Your task to perform on an android device: Do I have any events today? Image 0: 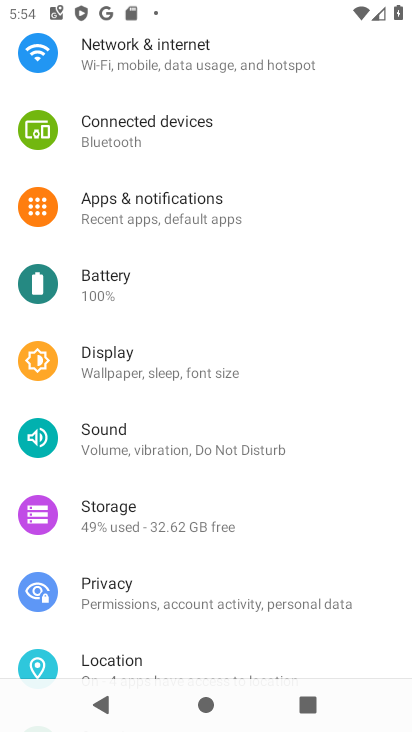
Step 0: press home button
Your task to perform on an android device: Do I have any events today? Image 1: 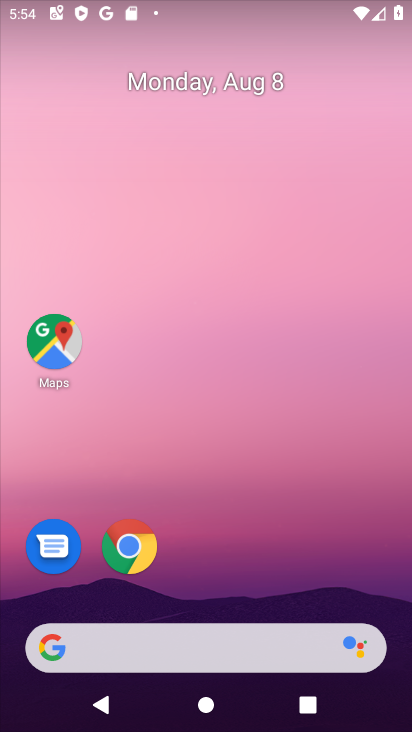
Step 1: drag from (244, 551) to (244, 154)
Your task to perform on an android device: Do I have any events today? Image 2: 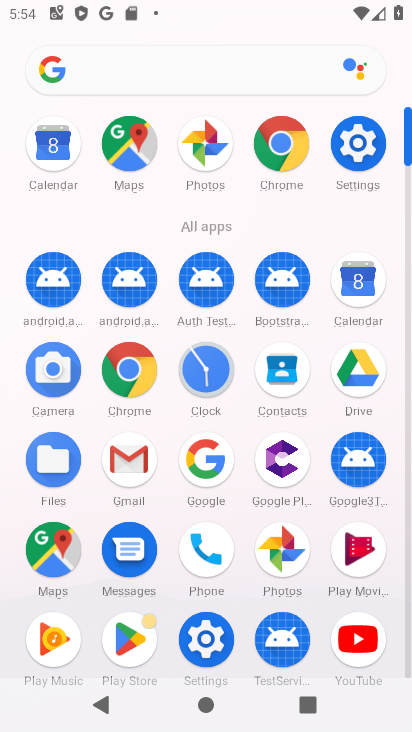
Step 2: click (356, 266)
Your task to perform on an android device: Do I have any events today? Image 3: 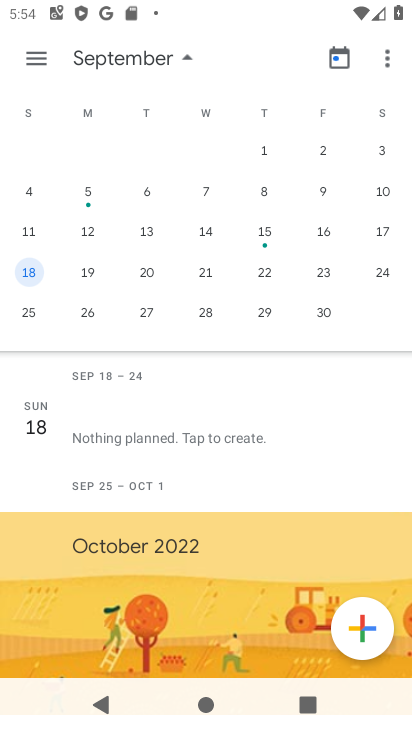
Step 3: drag from (137, 238) to (372, 224)
Your task to perform on an android device: Do I have any events today? Image 4: 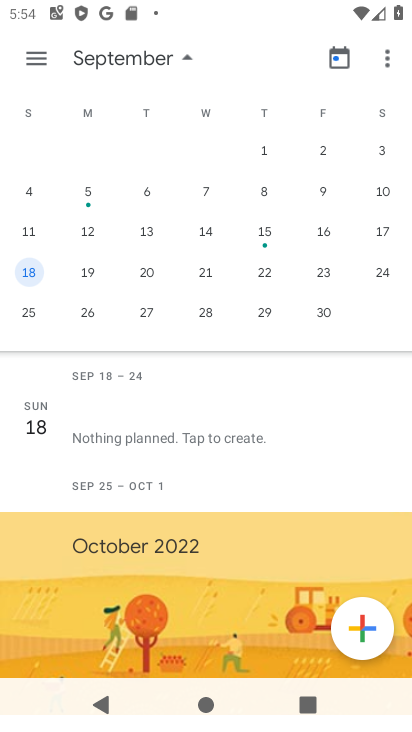
Step 4: drag from (67, 218) to (364, 218)
Your task to perform on an android device: Do I have any events today? Image 5: 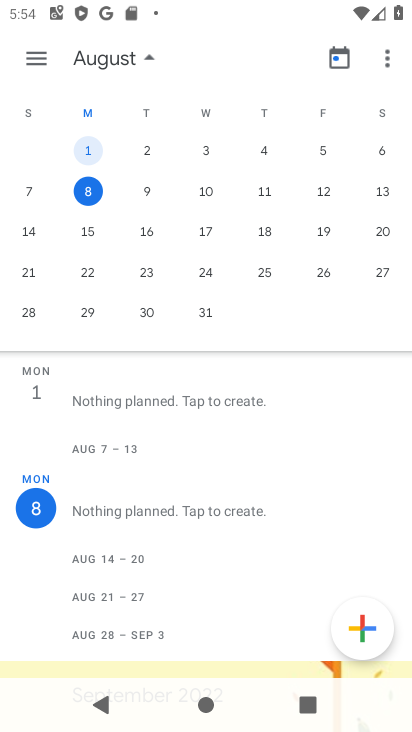
Step 5: click (82, 190)
Your task to perform on an android device: Do I have any events today? Image 6: 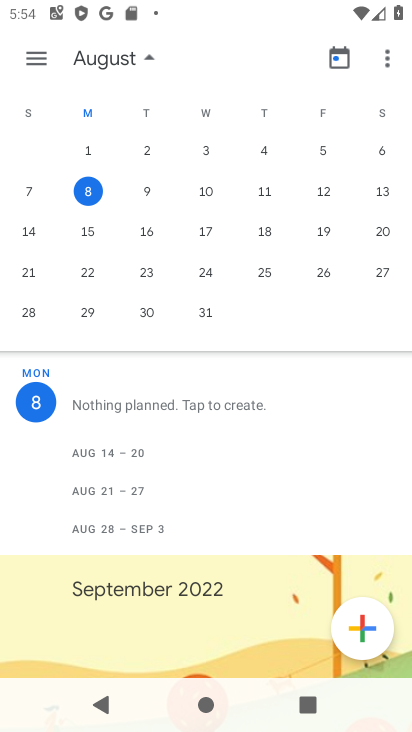
Step 6: task complete